Your task to perform on an android device: open chrome and create a bookmark for the current page Image 0: 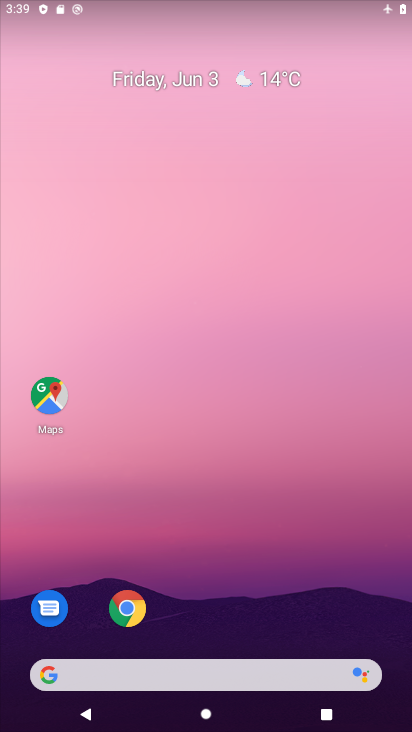
Step 0: drag from (174, 645) to (190, 175)
Your task to perform on an android device: open chrome and create a bookmark for the current page Image 1: 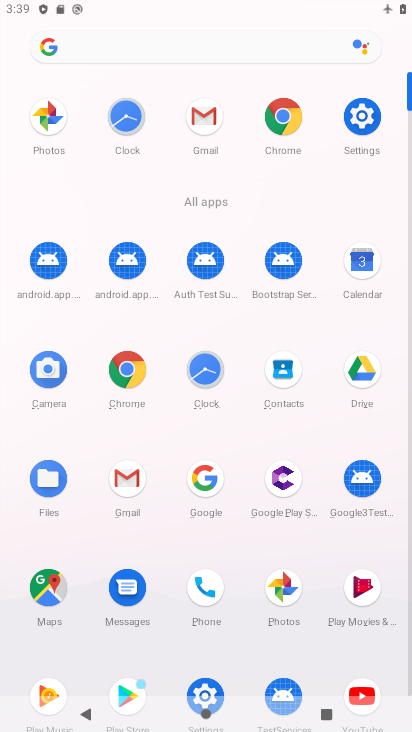
Step 1: click (283, 120)
Your task to perform on an android device: open chrome and create a bookmark for the current page Image 2: 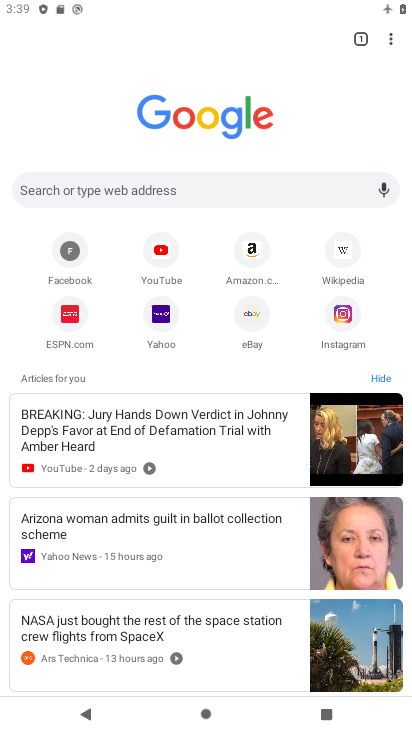
Step 2: click (391, 43)
Your task to perform on an android device: open chrome and create a bookmark for the current page Image 3: 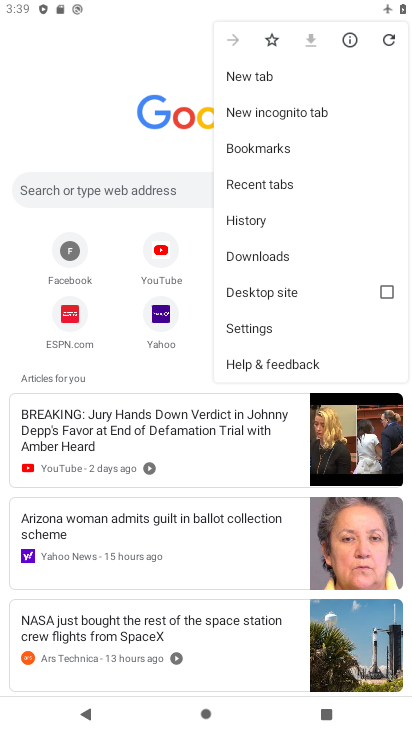
Step 3: click (272, 39)
Your task to perform on an android device: open chrome and create a bookmark for the current page Image 4: 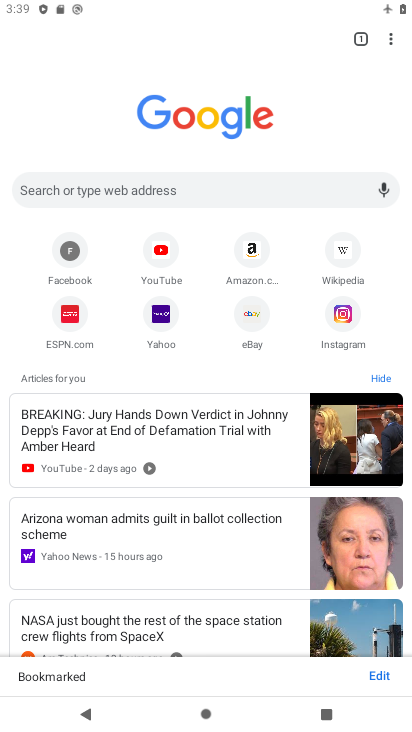
Step 4: task complete